Your task to perform on an android device: change timer sound Image 0: 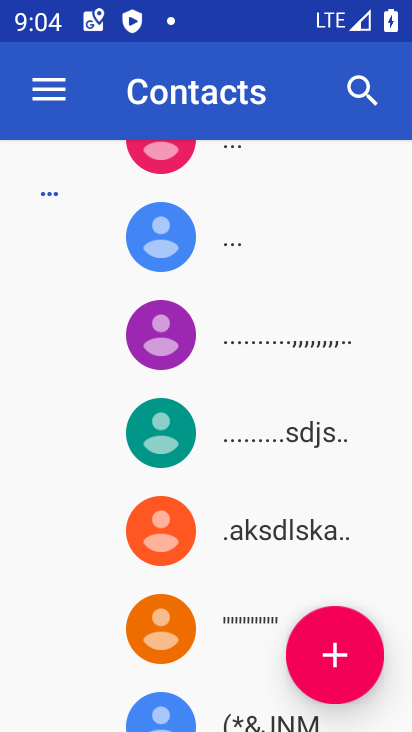
Step 0: press home button
Your task to perform on an android device: change timer sound Image 1: 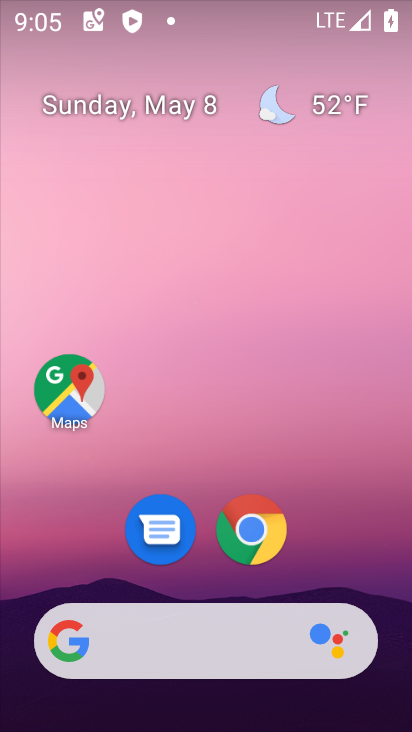
Step 1: drag from (383, 540) to (358, 157)
Your task to perform on an android device: change timer sound Image 2: 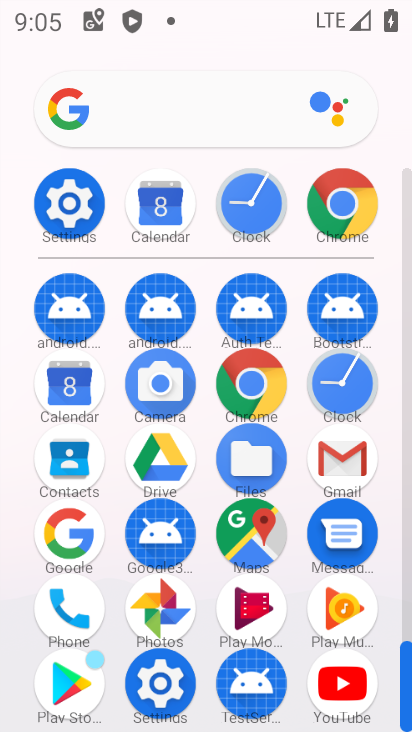
Step 2: click (330, 398)
Your task to perform on an android device: change timer sound Image 3: 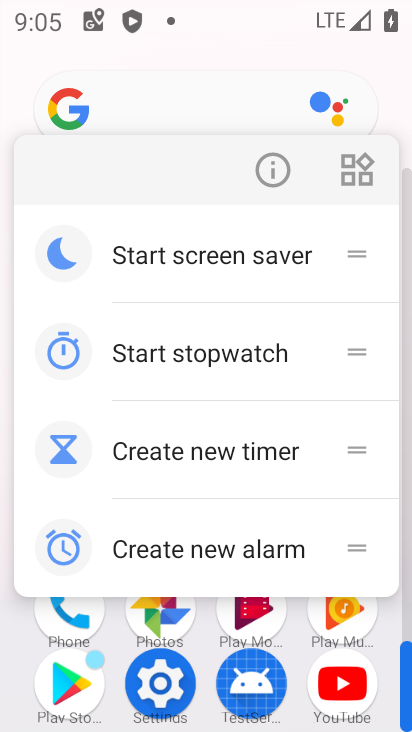
Step 3: click (198, 651)
Your task to perform on an android device: change timer sound Image 4: 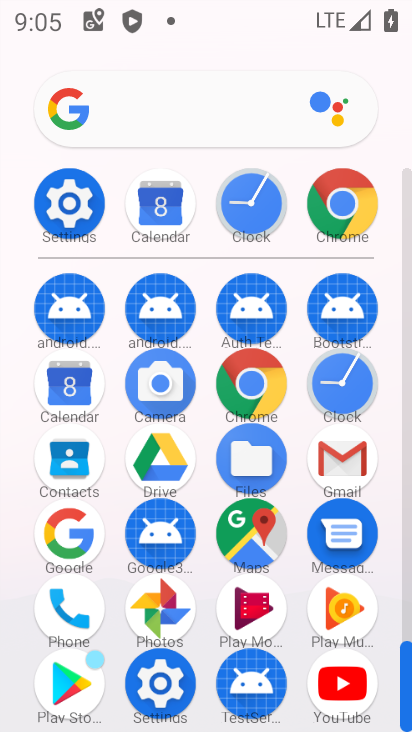
Step 4: click (327, 397)
Your task to perform on an android device: change timer sound Image 5: 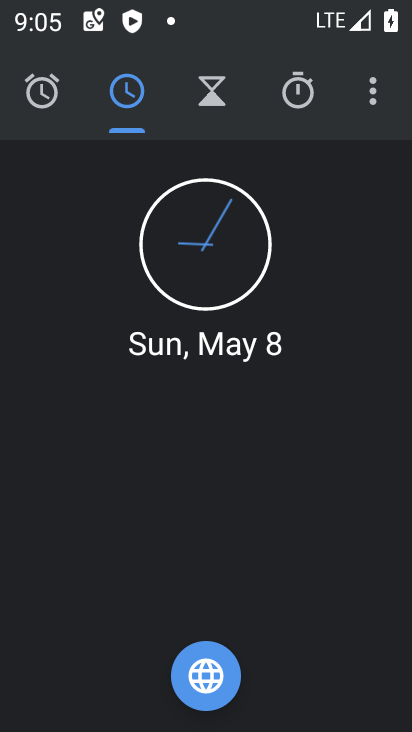
Step 5: click (375, 97)
Your task to perform on an android device: change timer sound Image 6: 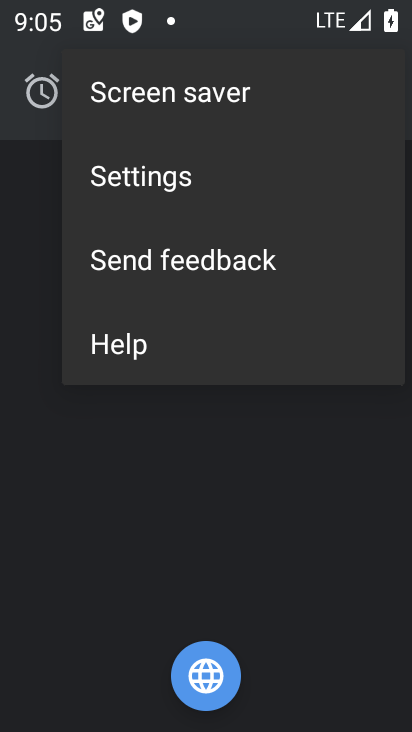
Step 6: click (200, 175)
Your task to perform on an android device: change timer sound Image 7: 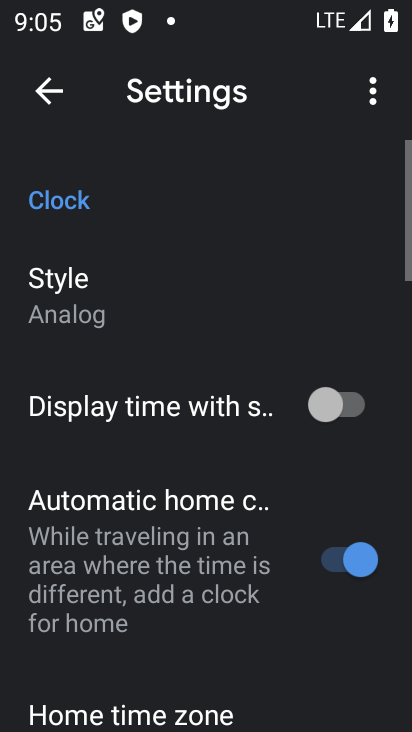
Step 7: drag from (247, 643) to (214, 354)
Your task to perform on an android device: change timer sound Image 8: 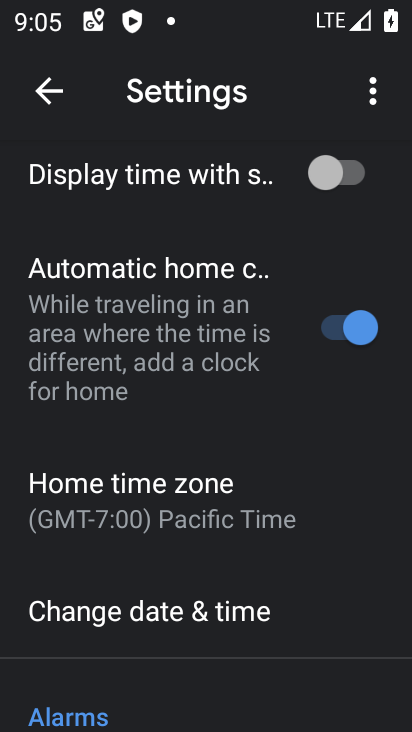
Step 8: drag from (230, 659) to (233, 341)
Your task to perform on an android device: change timer sound Image 9: 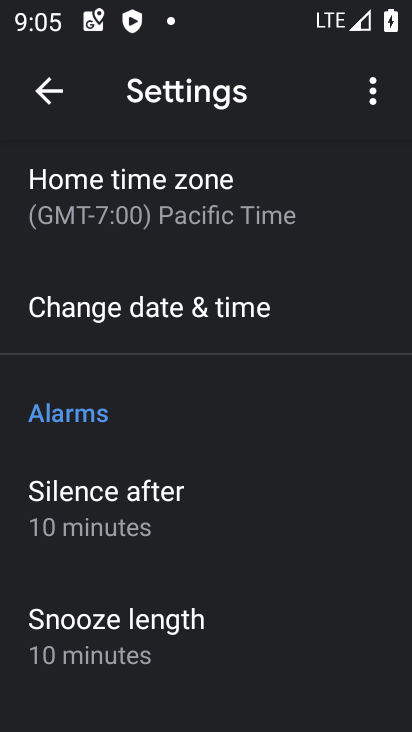
Step 9: drag from (245, 610) to (253, 208)
Your task to perform on an android device: change timer sound Image 10: 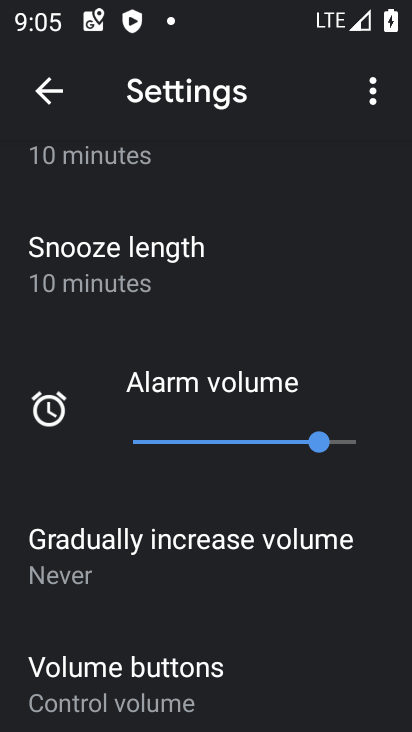
Step 10: drag from (250, 560) to (258, 235)
Your task to perform on an android device: change timer sound Image 11: 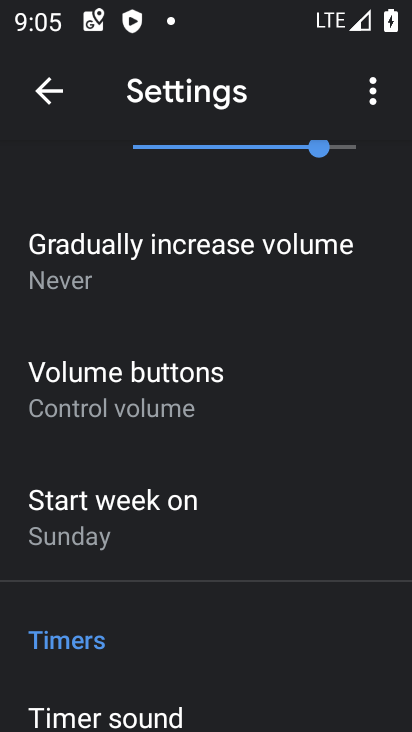
Step 11: drag from (287, 614) to (268, 220)
Your task to perform on an android device: change timer sound Image 12: 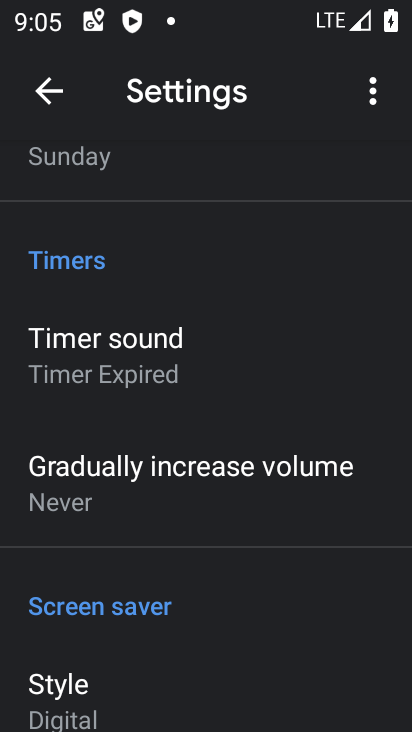
Step 12: click (166, 372)
Your task to perform on an android device: change timer sound Image 13: 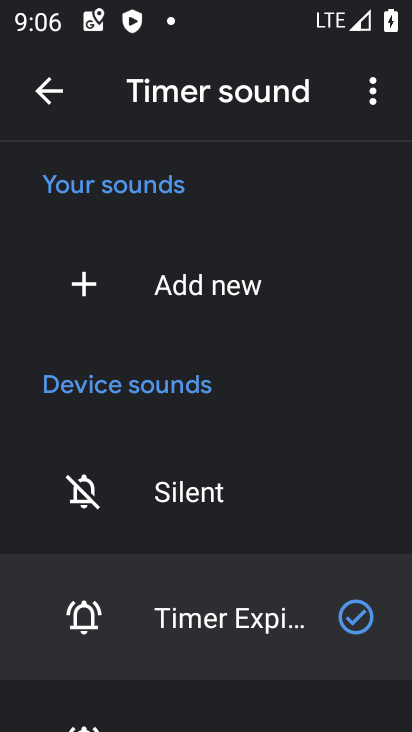
Step 13: drag from (269, 507) to (268, 165)
Your task to perform on an android device: change timer sound Image 14: 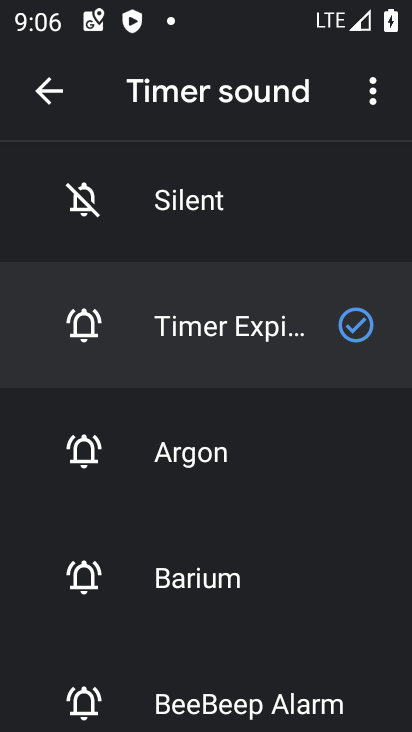
Step 14: click (223, 473)
Your task to perform on an android device: change timer sound Image 15: 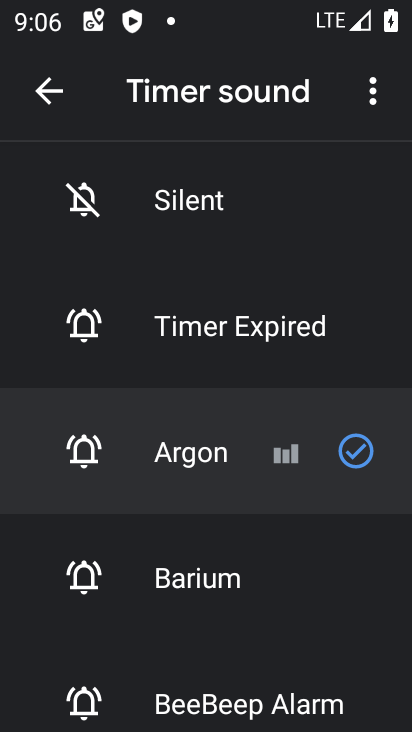
Step 15: task complete